Your task to perform on an android device: Open Google Chrome and click the shortcut for Amazon.com Image 0: 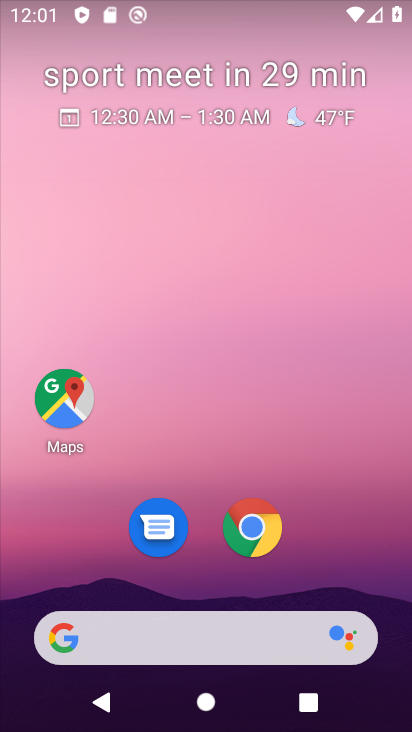
Step 0: click (254, 530)
Your task to perform on an android device: Open Google Chrome and click the shortcut for Amazon.com Image 1: 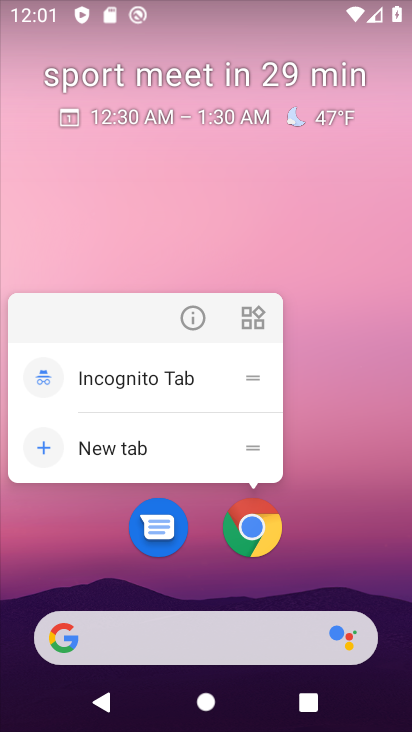
Step 1: click (254, 530)
Your task to perform on an android device: Open Google Chrome and click the shortcut for Amazon.com Image 2: 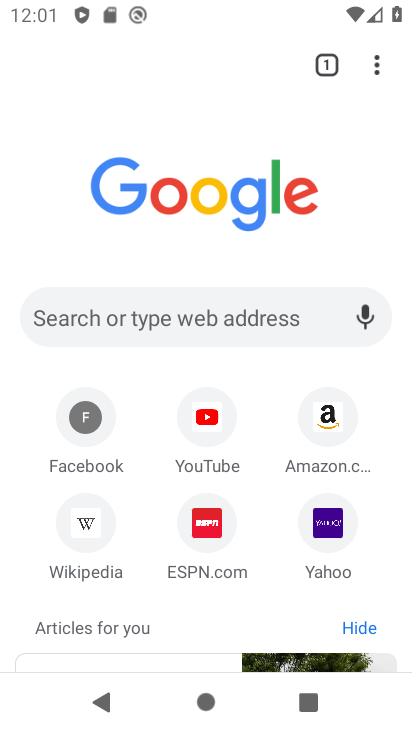
Step 2: click (334, 431)
Your task to perform on an android device: Open Google Chrome and click the shortcut for Amazon.com Image 3: 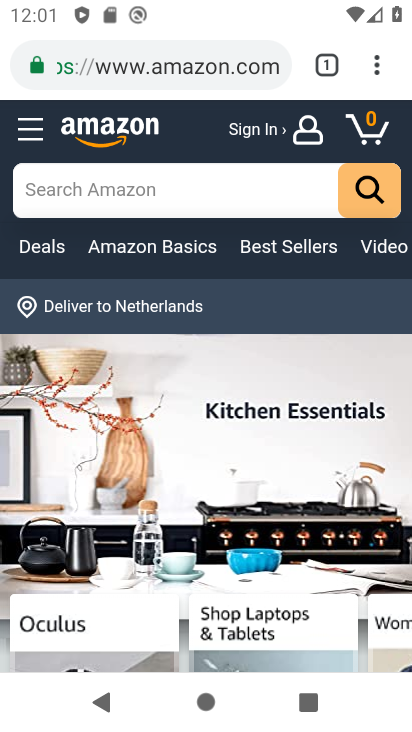
Step 3: task complete